Your task to perform on an android device: When is my next appointment? Image 0: 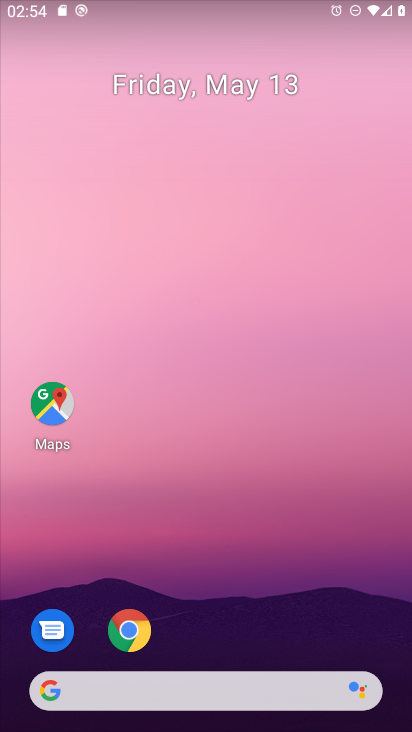
Step 0: drag from (235, 710) to (248, 258)
Your task to perform on an android device: When is my next appointment? Image 1: 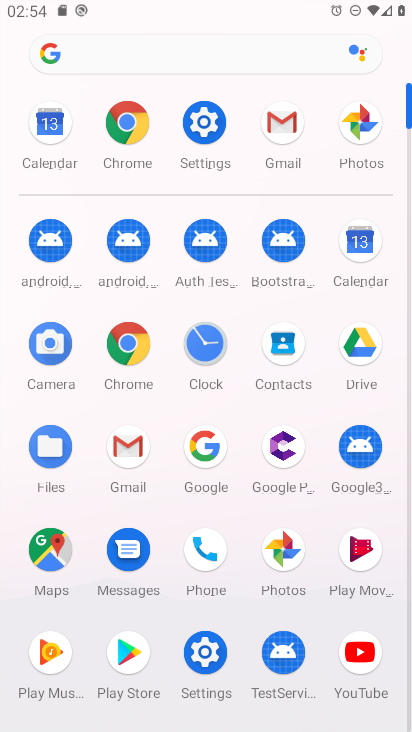
Step 1: click (350, 261)
Your task to perform on an android device: When is my next appointment? Image 2: 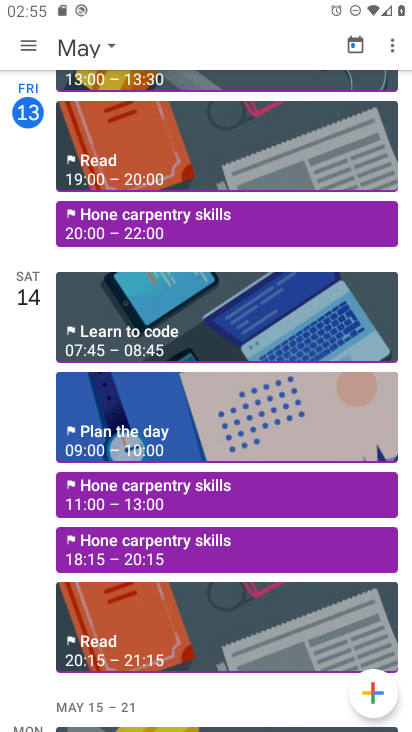
Step 2: click (33, 57)
Your task to perform on an android device: When is my next appointment? Image 3: 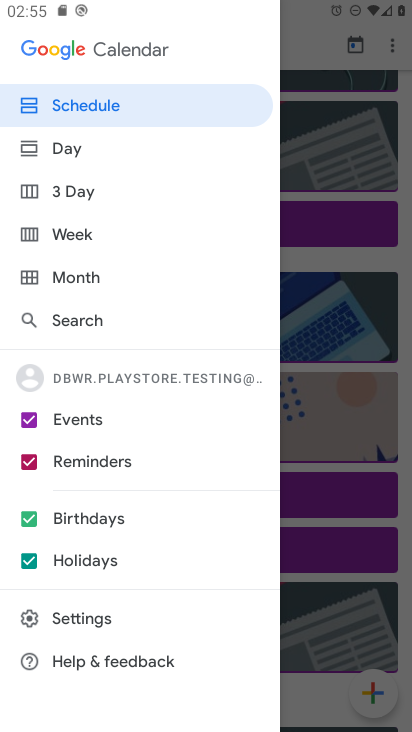
Step 3: click (83, 103)
Your task to perform on an android device: When is my next appointment? Image 4: 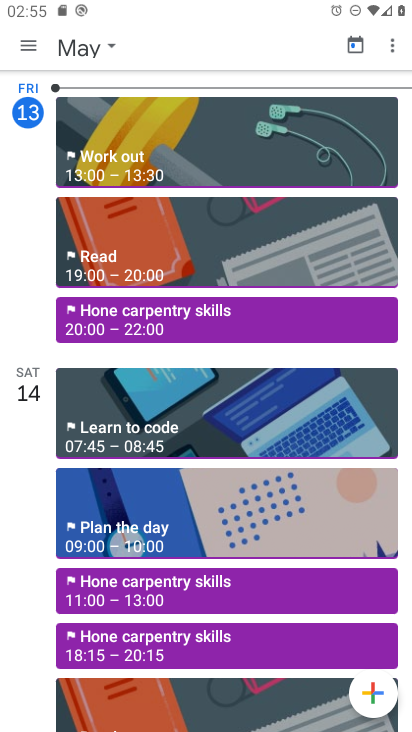
Step 4: task complete